Your task to perform on an android device: Open sound settings Image 0: 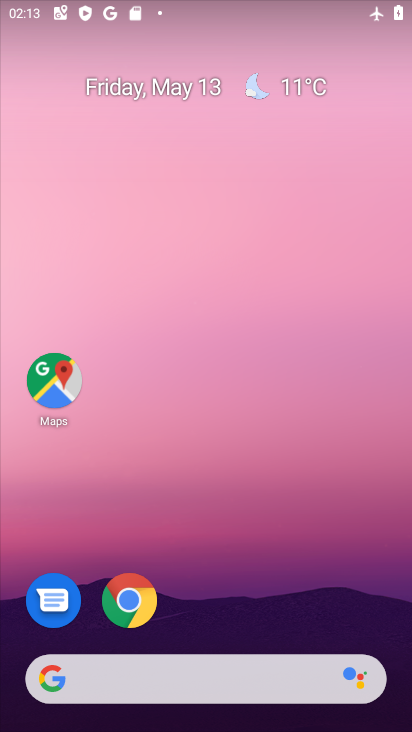
Step 0: drag from (207, 617) to (303, 99)
Your task to perform on an android device: Open sound settings Image 1: 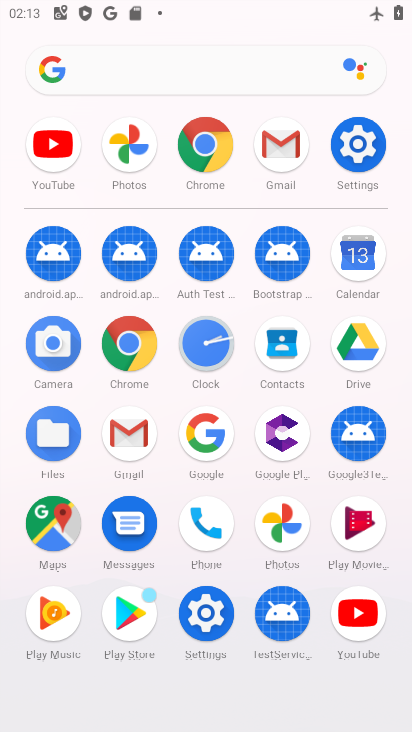
Step 1: click (365, 136)
Your task to perform on an android device: Open sound settings Image 2: 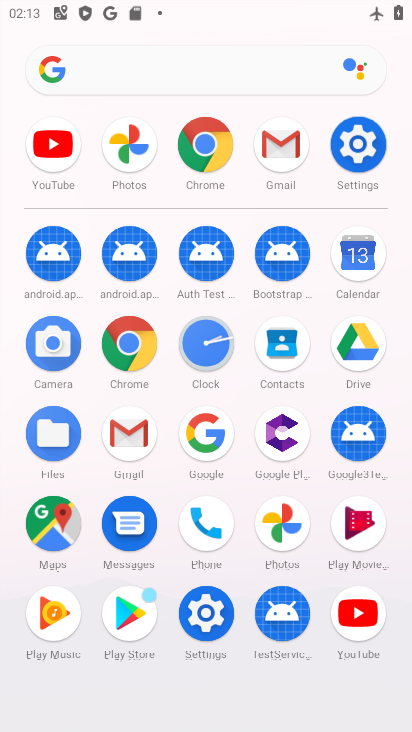
Step 2: click (365, 136)
Your task to perform on an android device: Open sound settings Image 3: 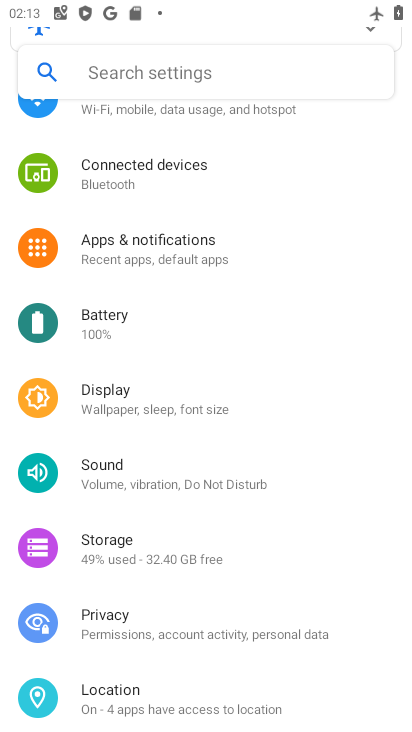
Step 3: click (134, 465)
Your task to perform on an android device: Open sound settings Image 4: 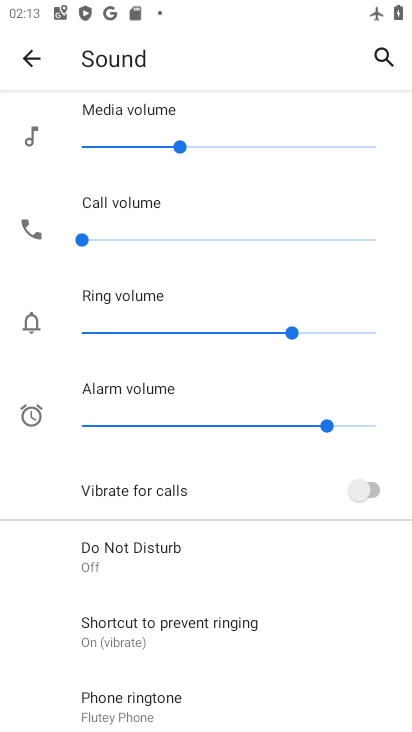
Step 4: task complete